Your task to perform on an android device: Add "apple airpods" to the cart on bestbuy, then select checkout. Image 0: 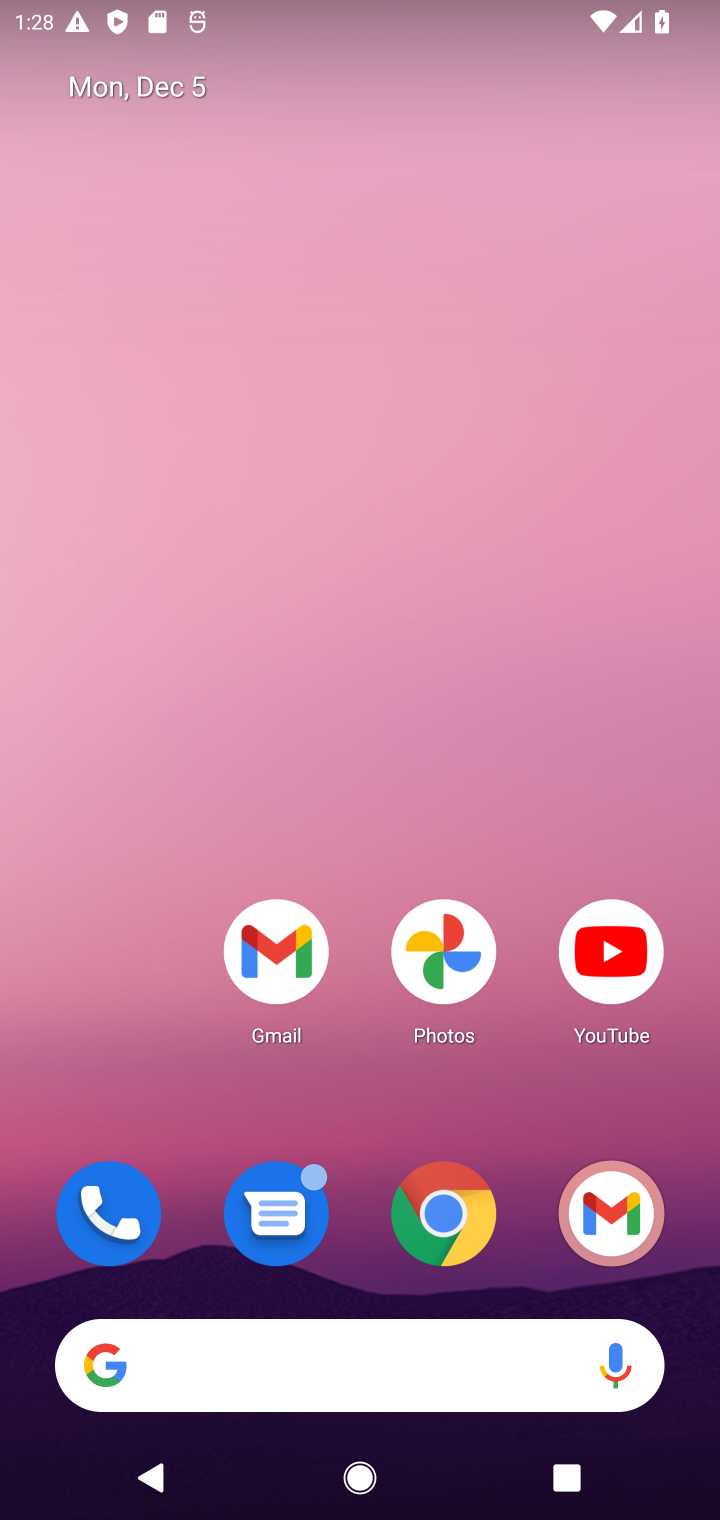
Step 0: click (434, 1223)
Your task to perform on an android device: Add "apple airpods" to the cart on bestbuy, then select checkout. Image 1: 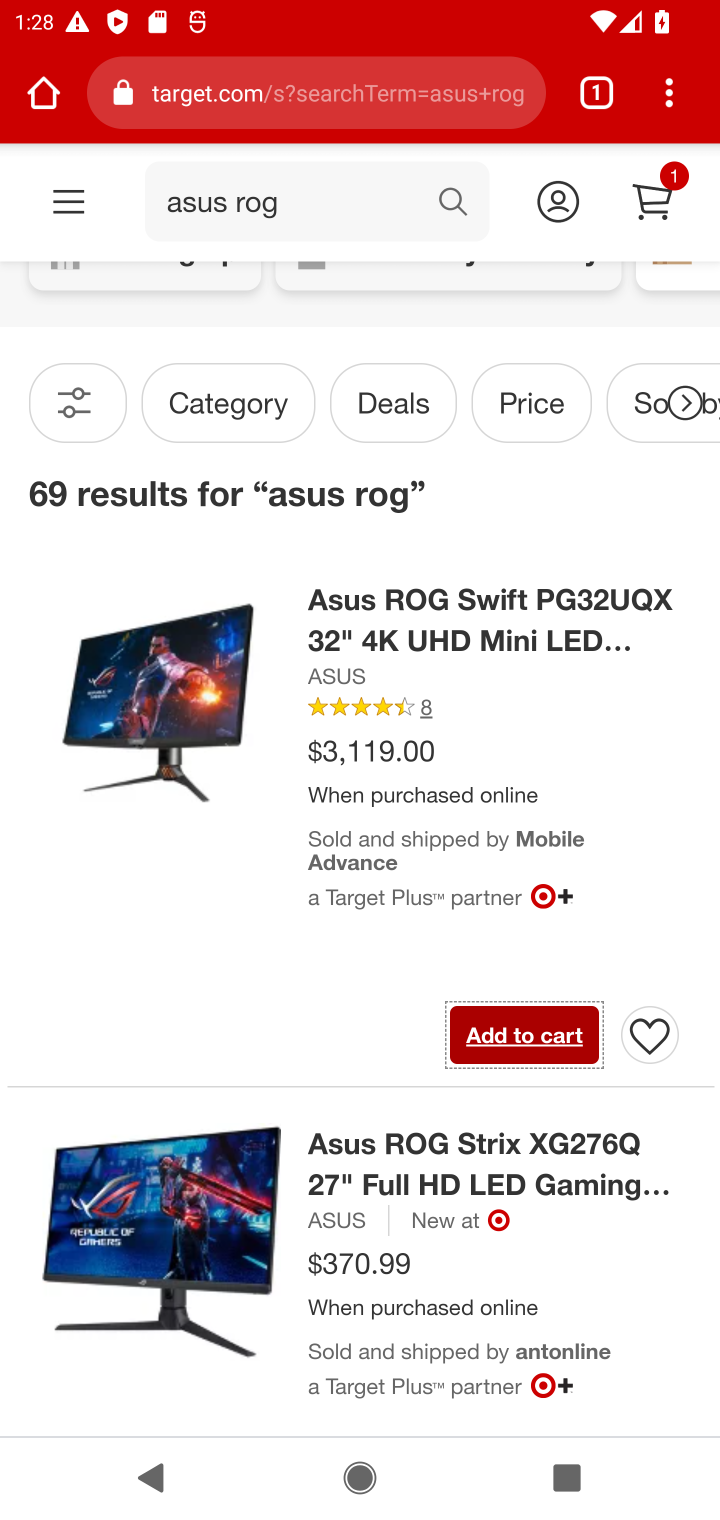
Step 1: click (274, 109)
Your task to perform on an android device: Add "apple airpods" to the cart on bestbuy, then select checkout. Image 2: 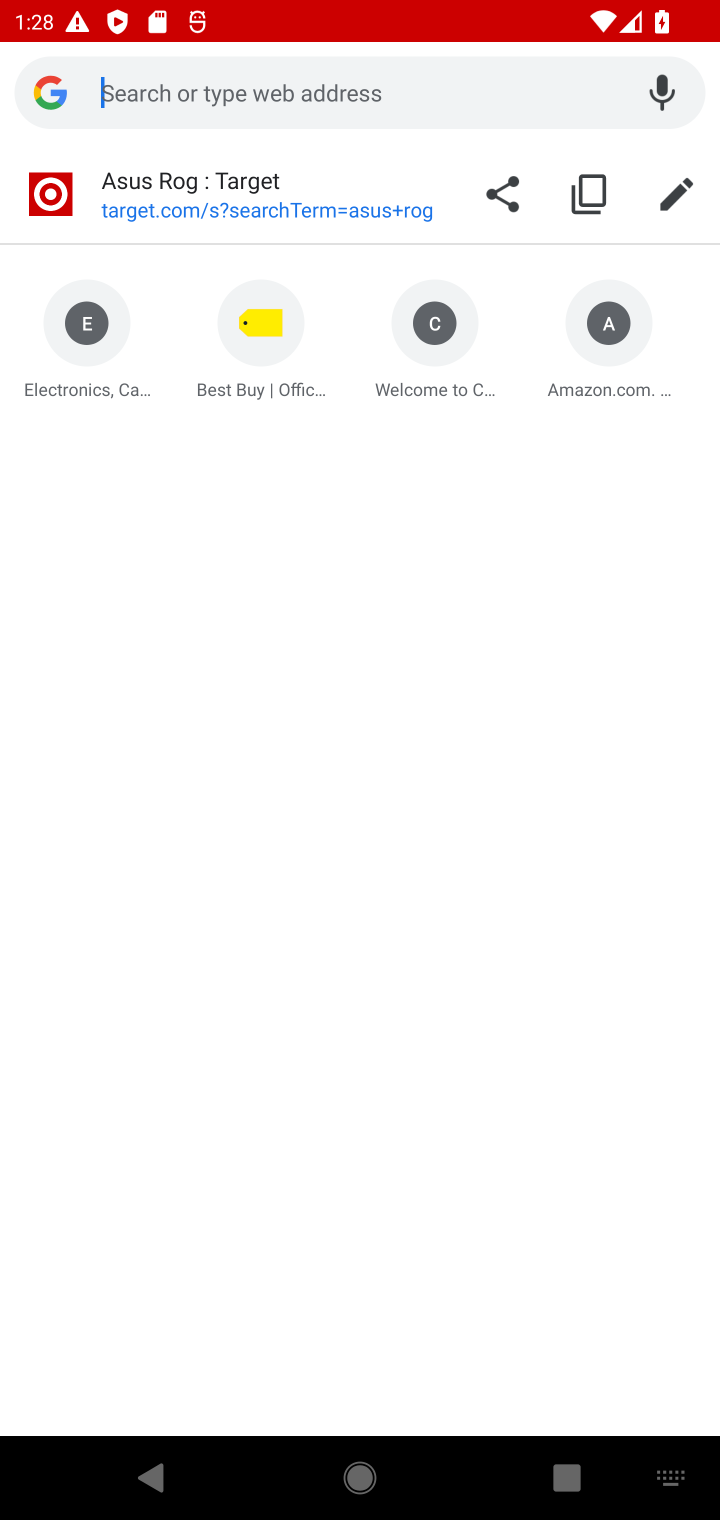
Step 2: click (270, 327)
Your task to perform on an android device: Add "apple airpods" to the cart on bestbuy, then select checkout. Image 3: 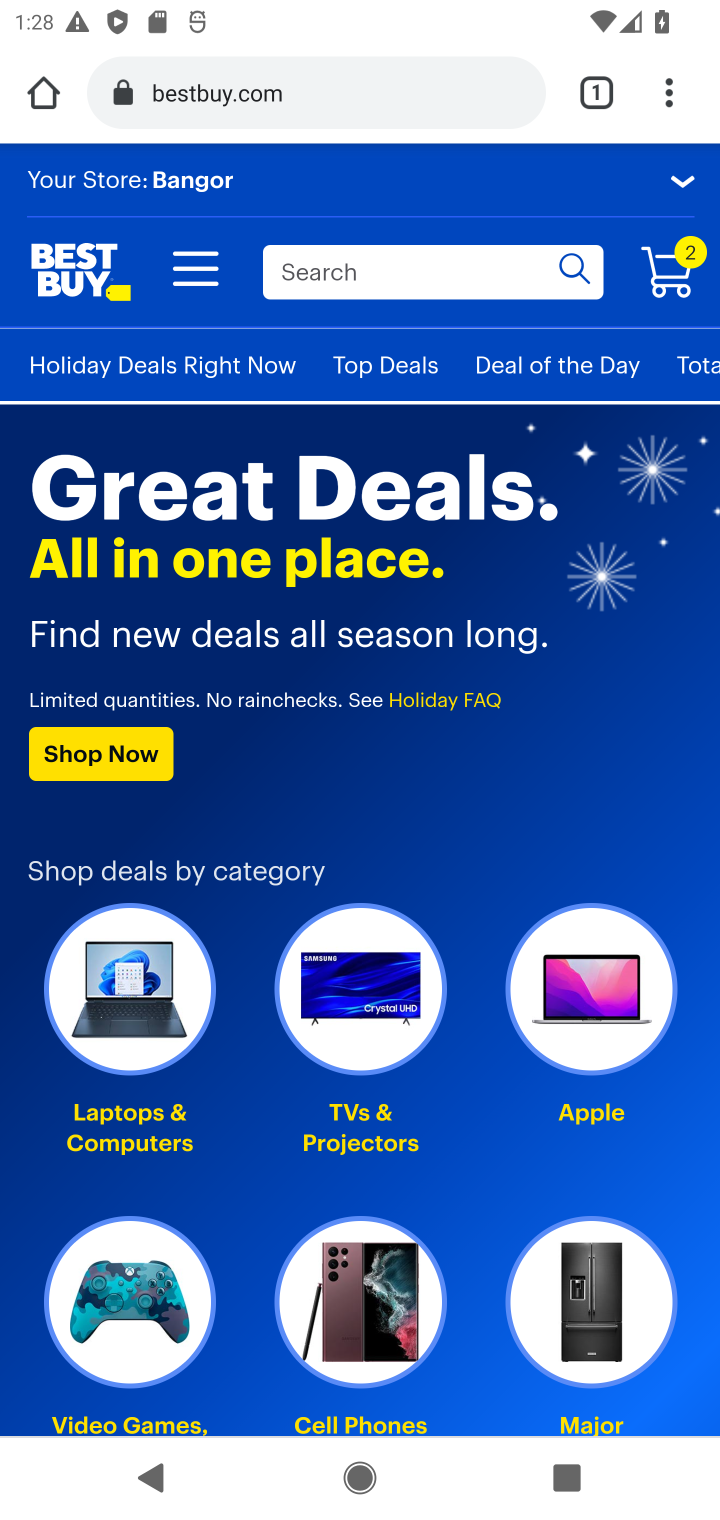
Step 3: click (392, 290)
Your task to perform on an android device: Add "apple airpods" to the cart on bestbuy, then select checkout. Image 4: 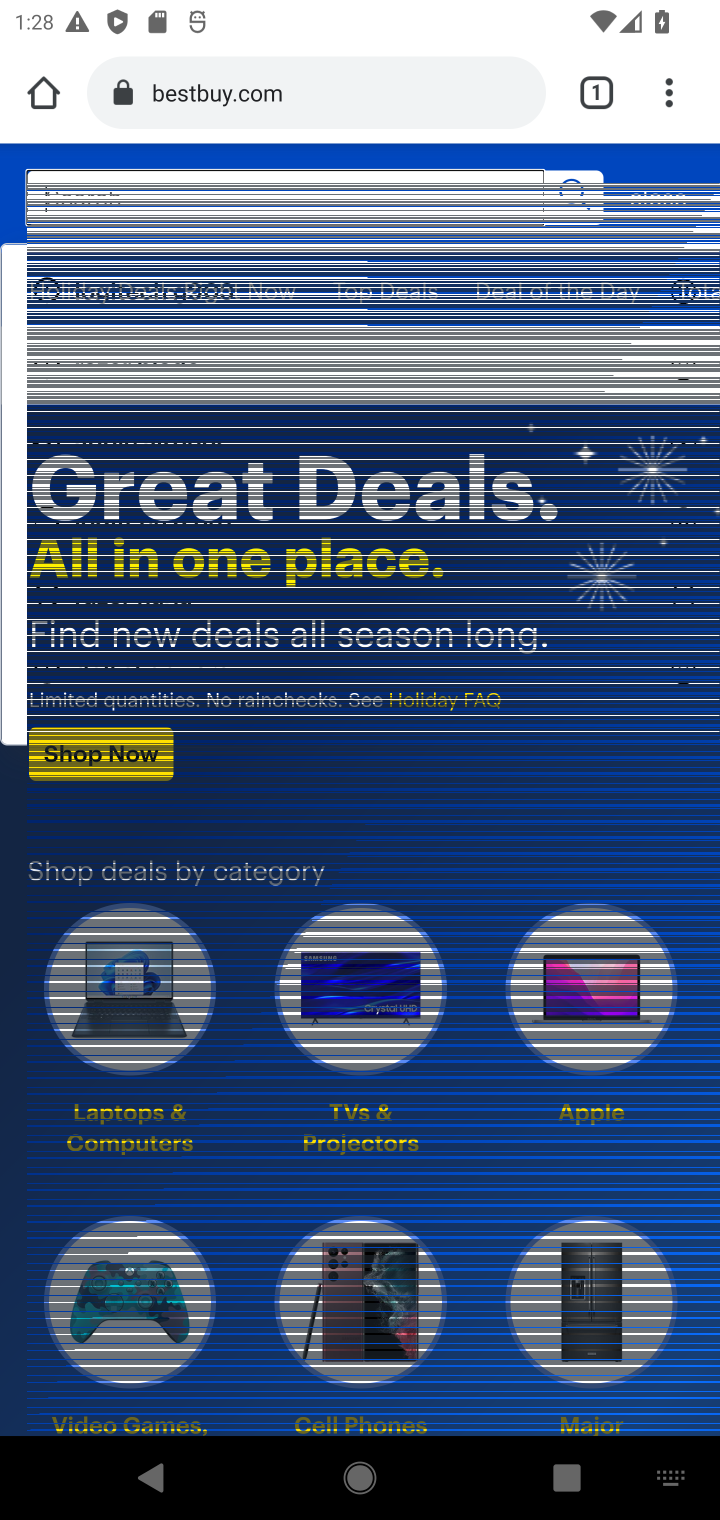
Step 4: type "apple airpods"
Your task to perform on an android device: Add "apple airpods" to the cart on bestbuy, then select checkout. Image 5: 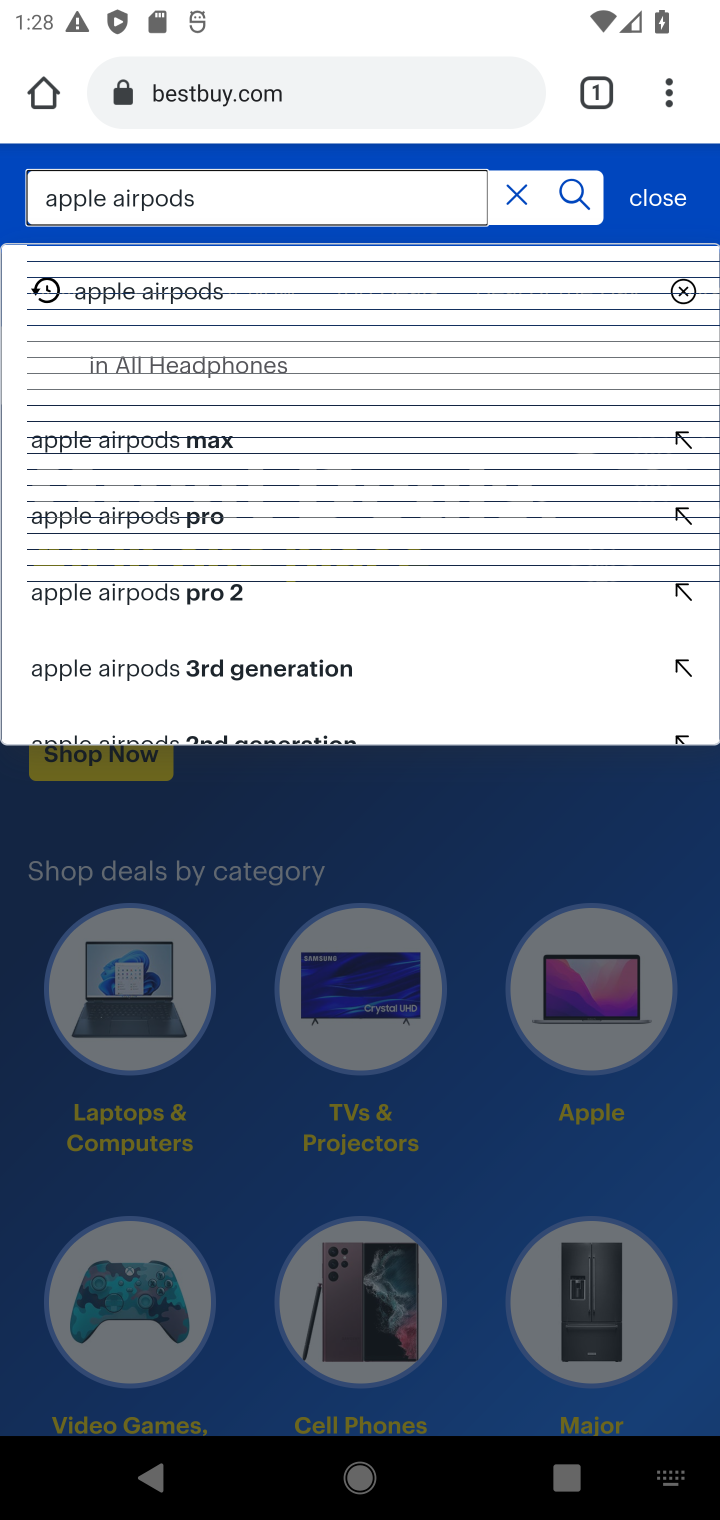
Step 5: click (200, 298)
Your task to perform on an android device: Add "apple airpods" to the cart on bestbuy, then select checkout. Image 6: 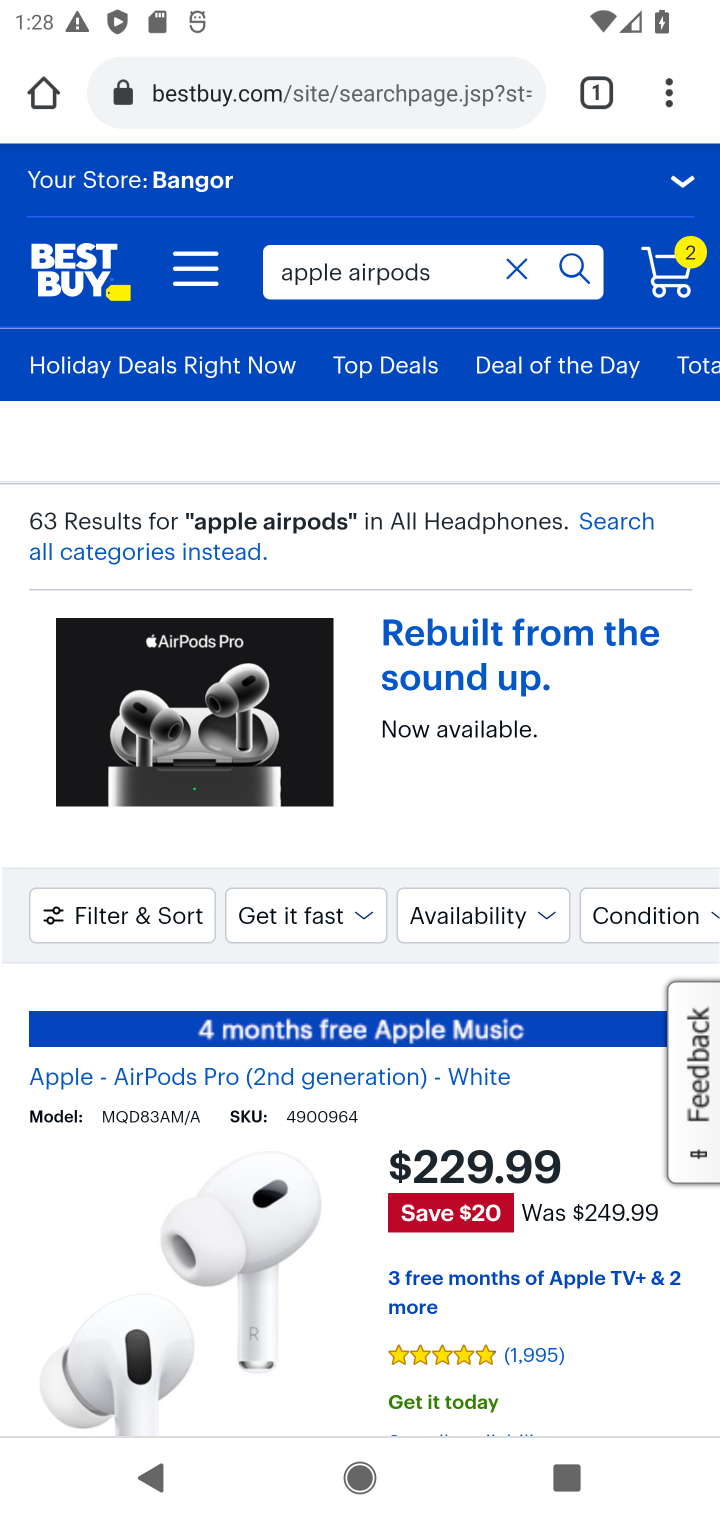
Step 6: click (571, 198)
Your task to perform on an android device: Add "apple airpods" to the cart on bestbuy, then select checkout. Image 7: 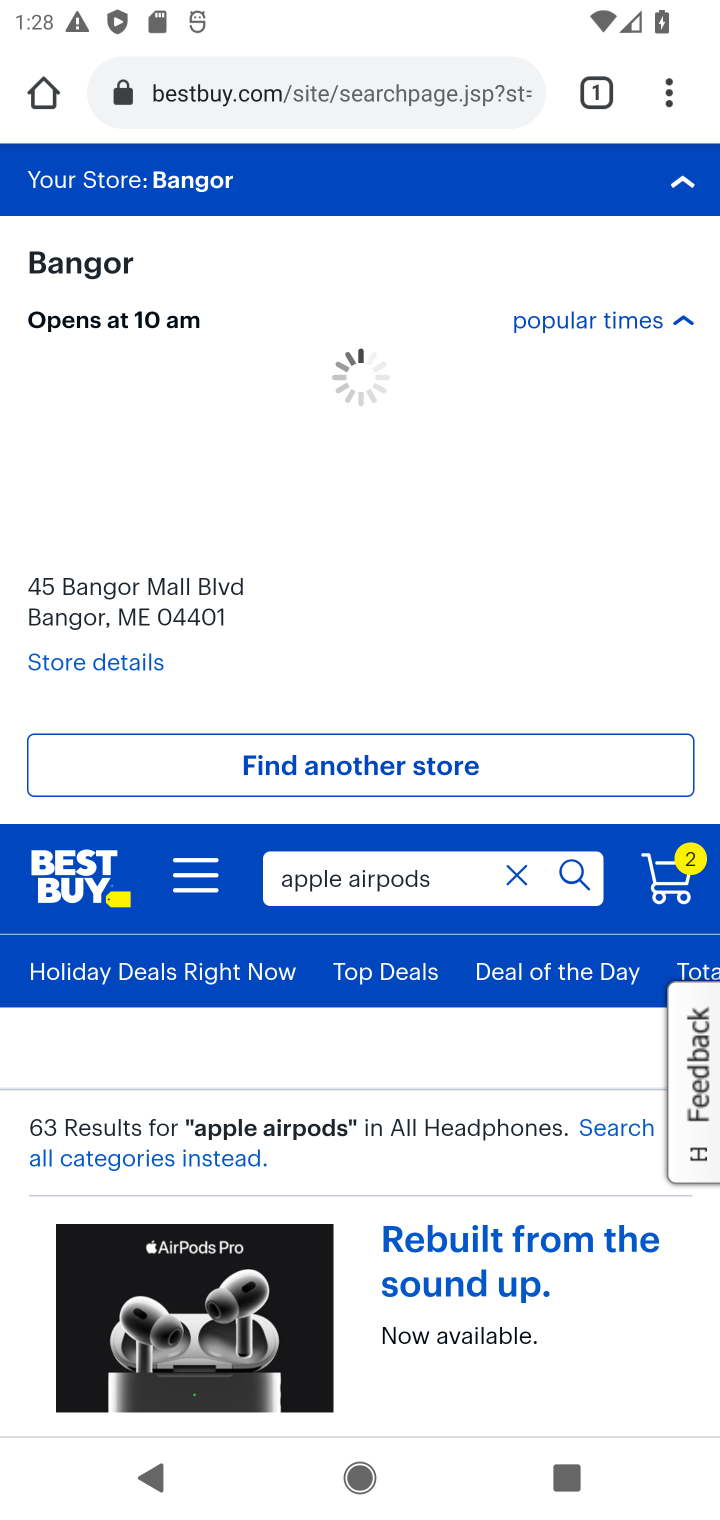
Step 7: drag from (313, 903) to (331, 407)
Your task to perform on an android device: Add "apple airpods" to the cart on bestbuy, then select checkout. Image 8: 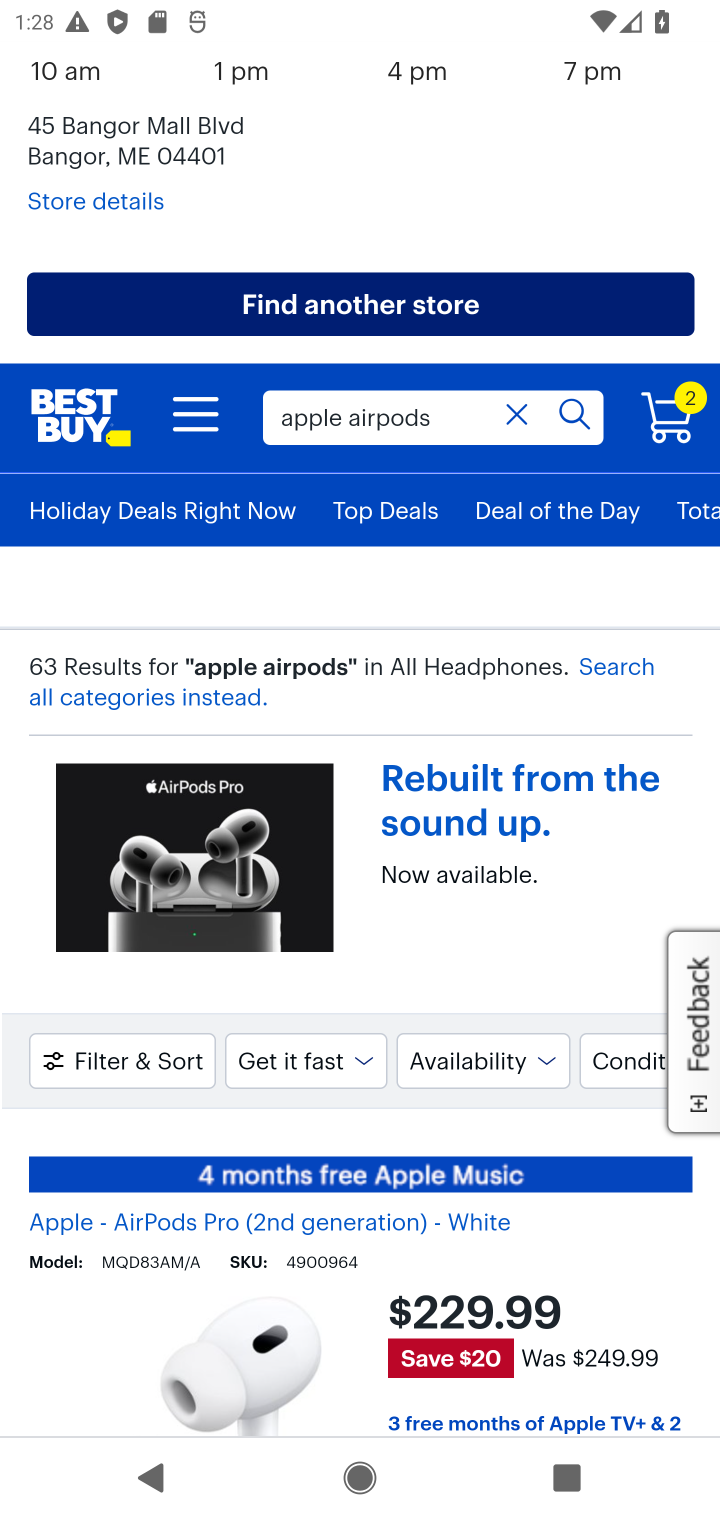
Step 8: drag from (233, 898) to (294, 332)
Your task to perform on an android device: Add "apple airpods" to the cart on bestbuy, then select checkout. Image 9: 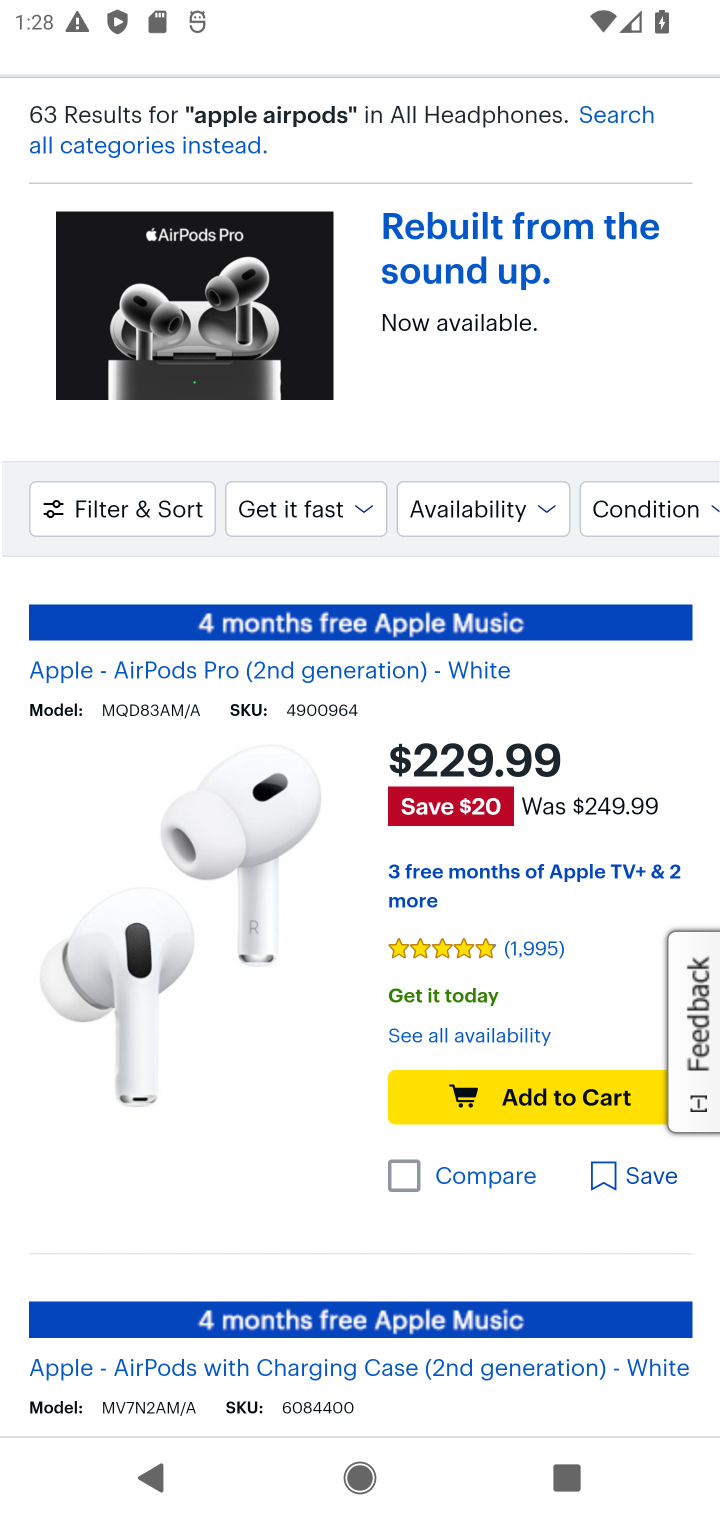
Step 9: drag from (243, 680) to (255, 424)
Your task to perform on an android device: Add "apple airpods" to the cart on bestbuy, then select checkout. Image 10: 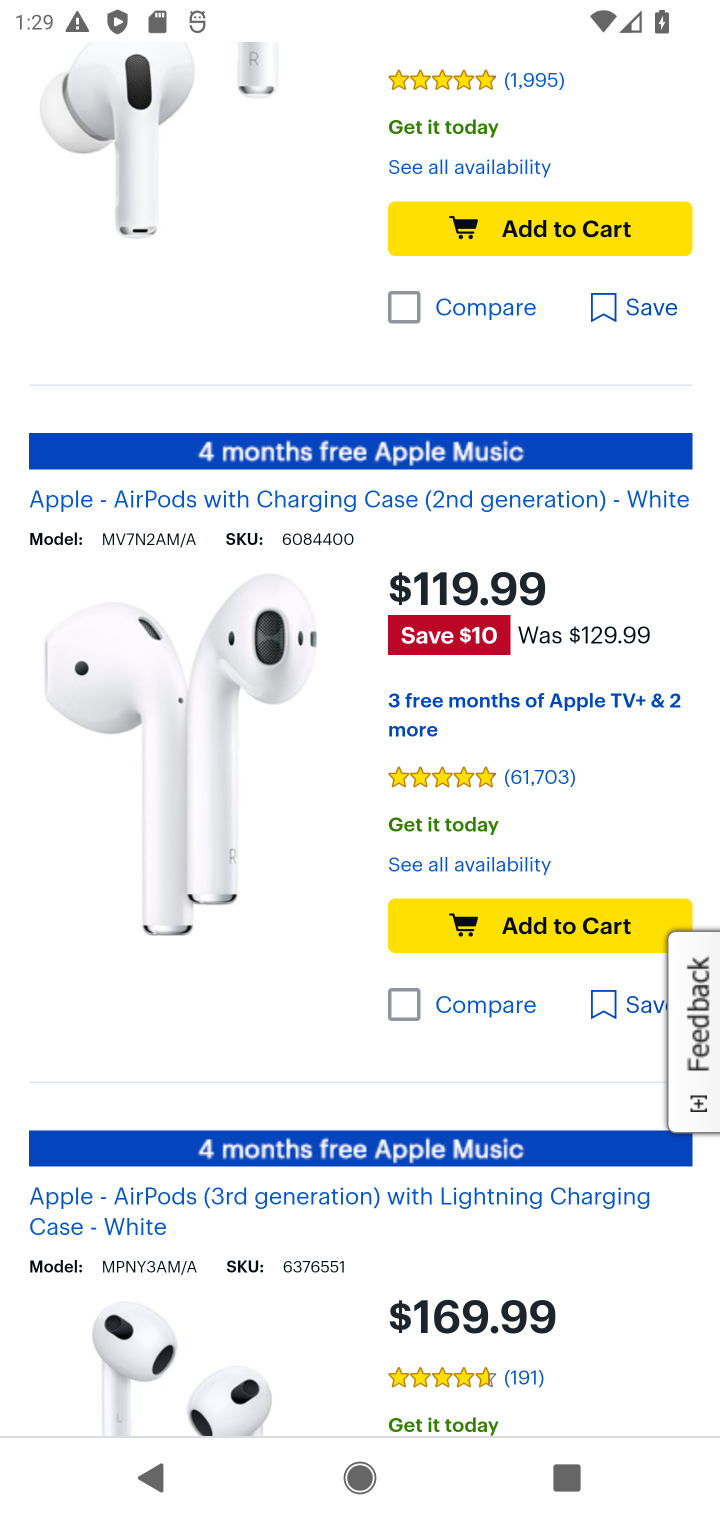
Step 10: click (525, 921)
Your task to perform on an android device: Add "apple airpods" to the cart on bestbuy, then select checkout. Image 11: 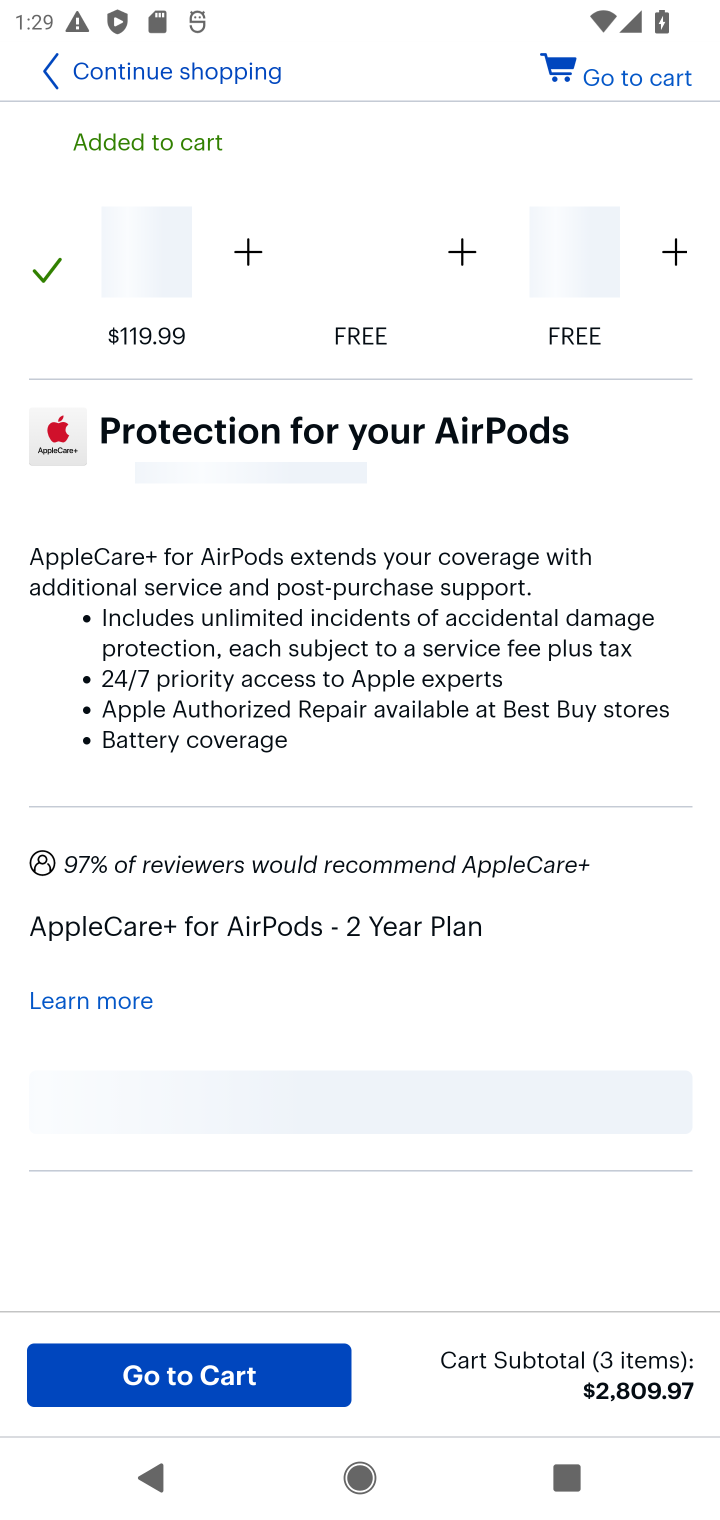
Step 11: click (628, 83)
Your task to perform on an android device: Add "apple airpods" to the cart on bestbuy, then select checkout. Image 12: 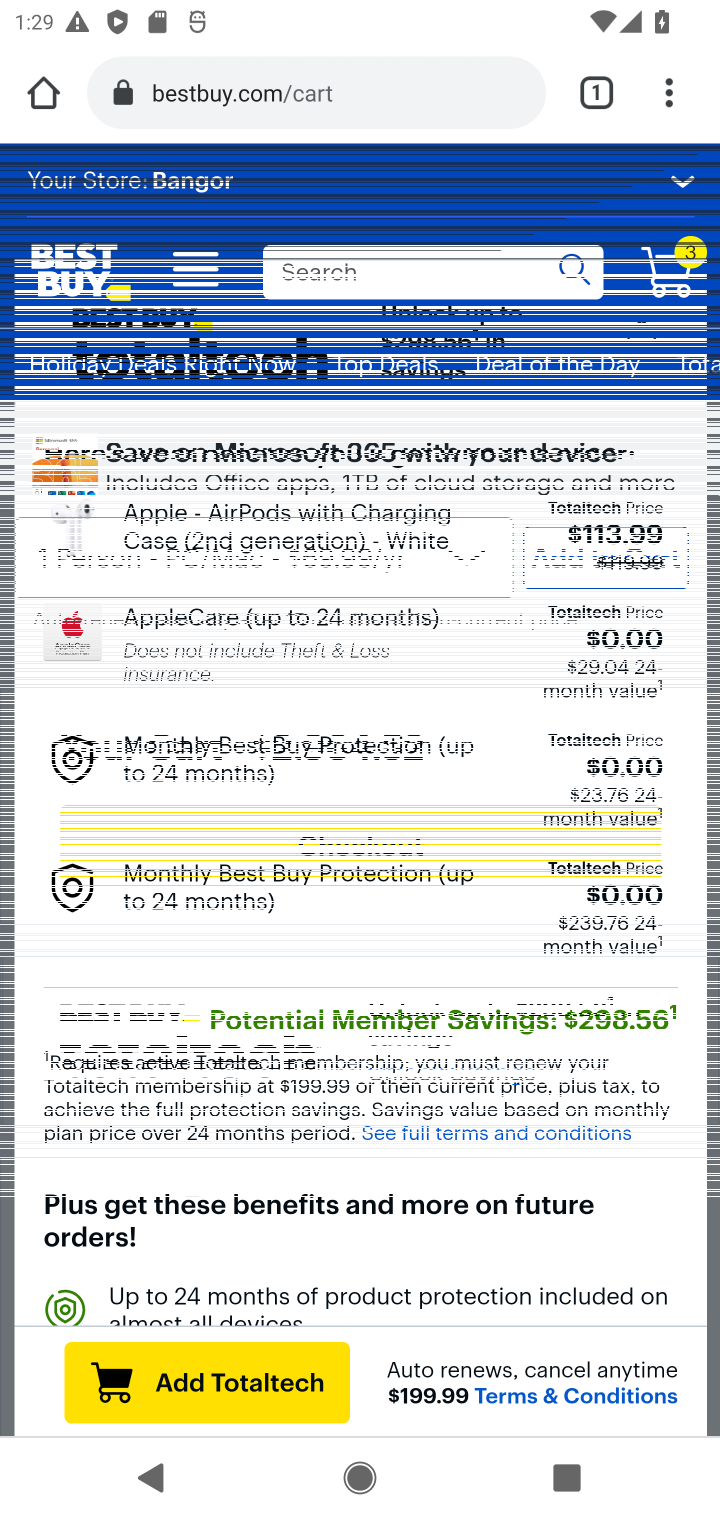
Step 12: click (667, 435)
Your task to perform on an android device: Add "apple airpods" to the cart on bestbuy, then select checkout. Image 13: 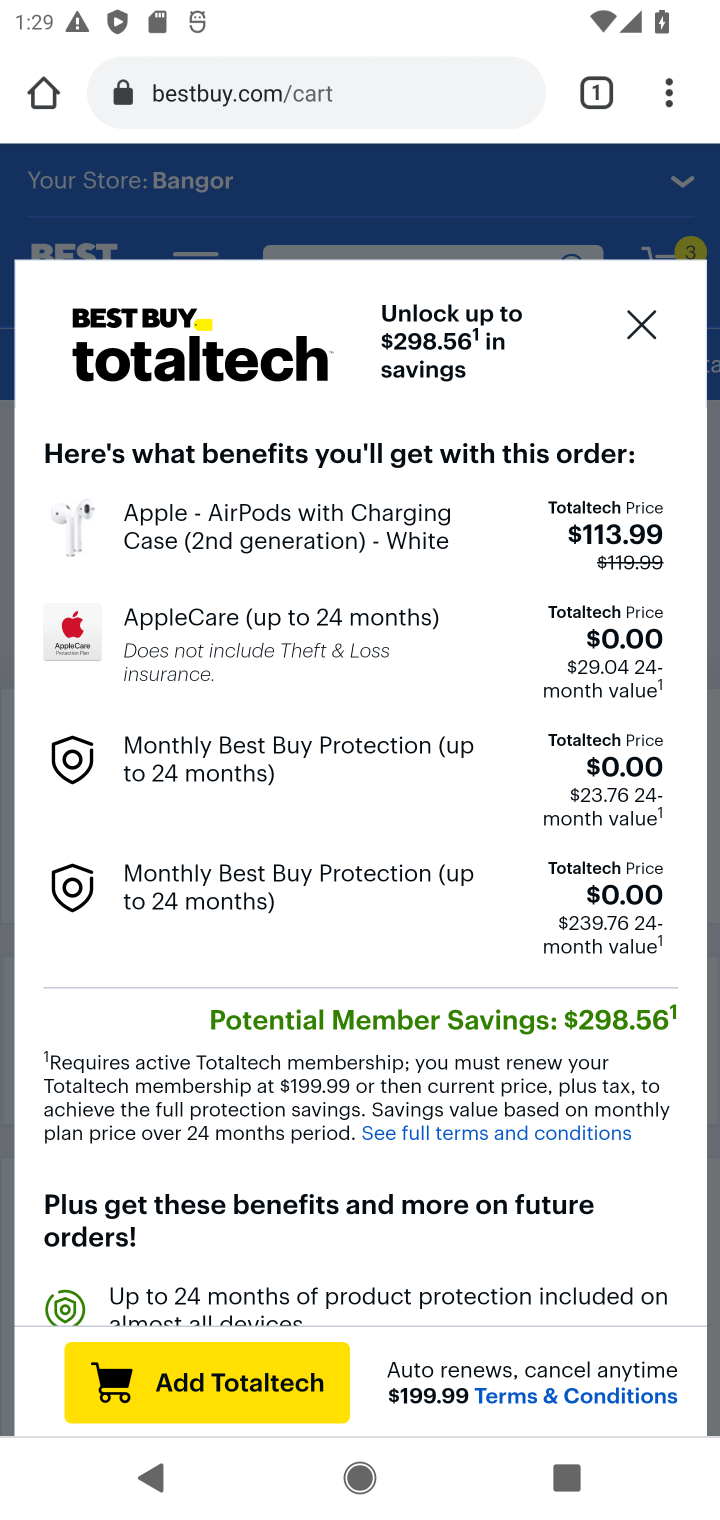
Step 13: click (643, 324)
Your task to perform on an android device: Add "apple airpods" to the cart on bestbuy, then select checkout. Image 14: 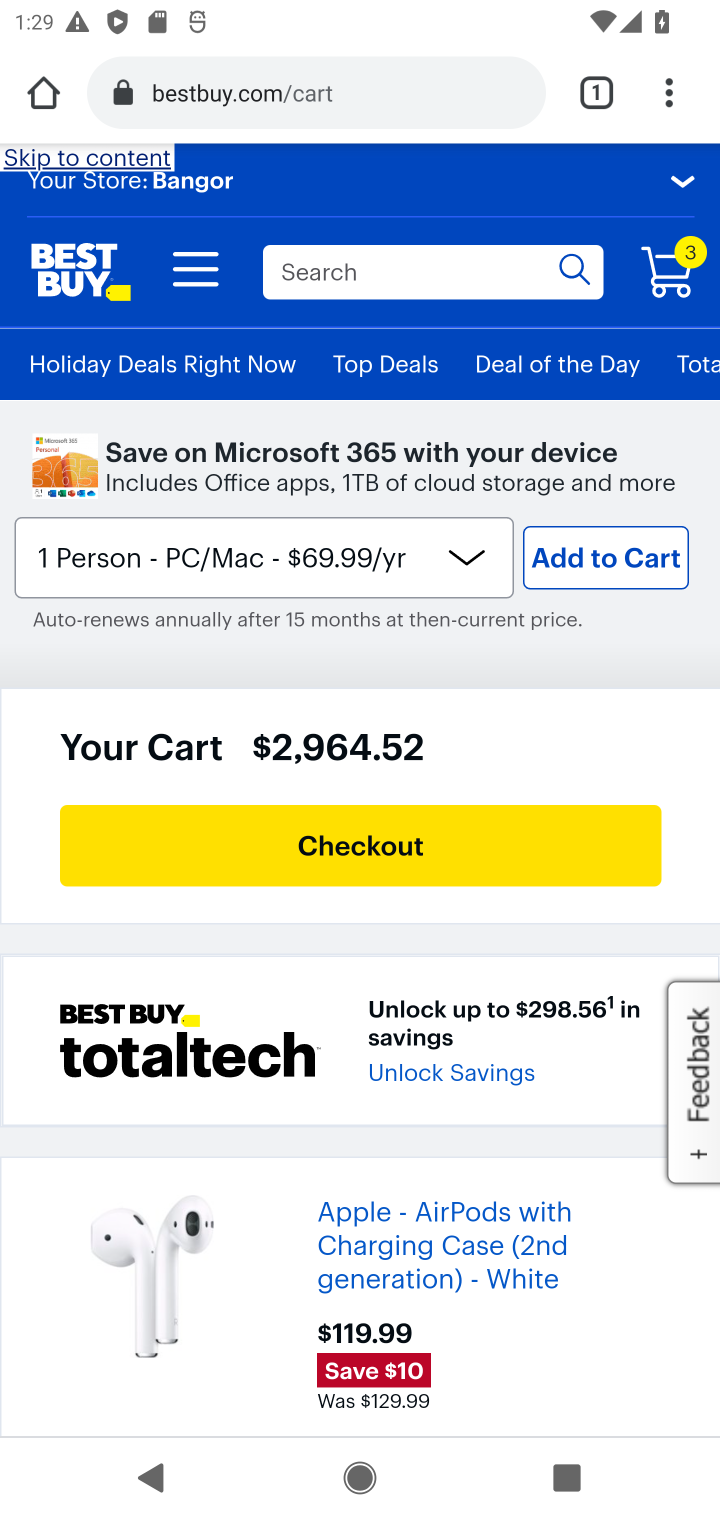
Step 14: click (390, 857)
Your task to perform on an android device: Add "apple airpods" to the cart on bestbuy, then select checkout. Image 15: 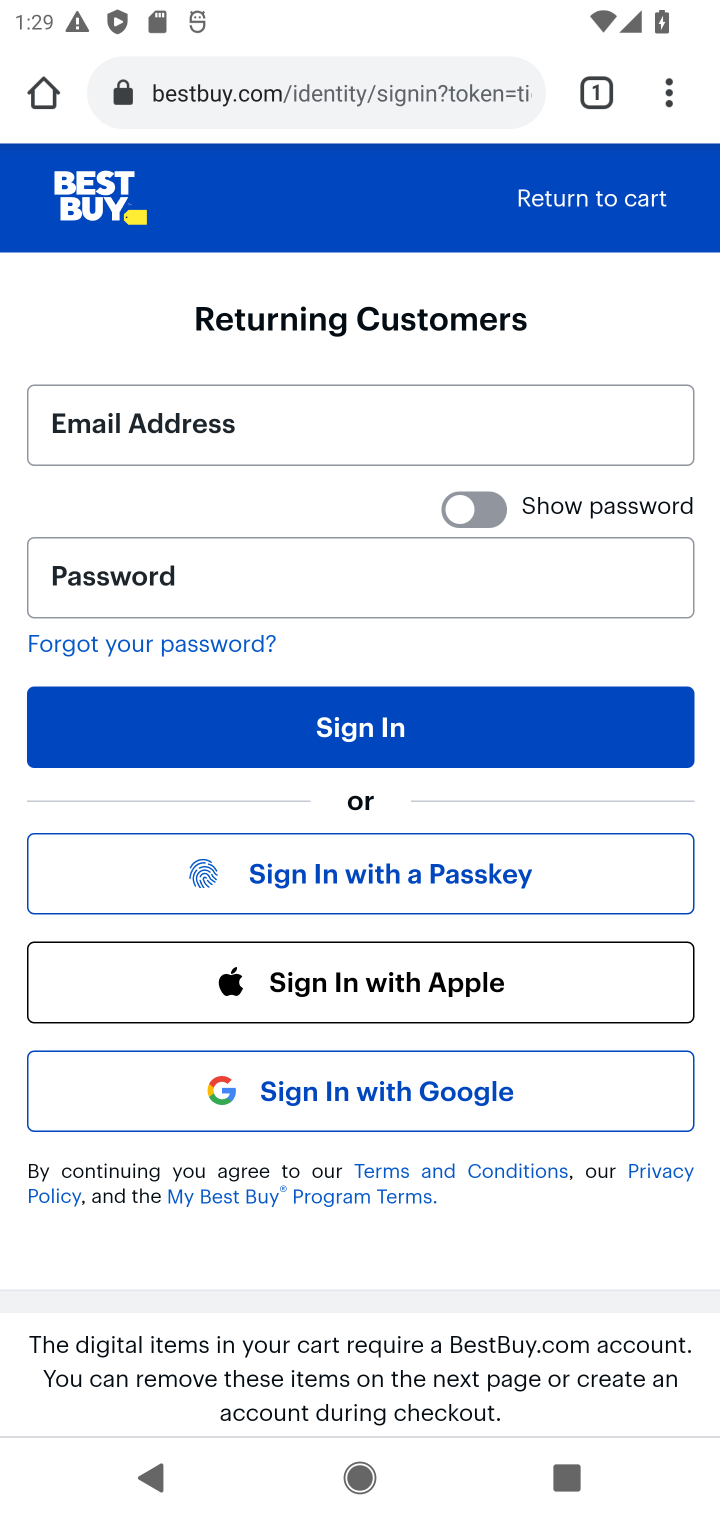
Step 15: task complete